Your task to perform on an android device: Search for Mexican restaurants on Maps Image 0: 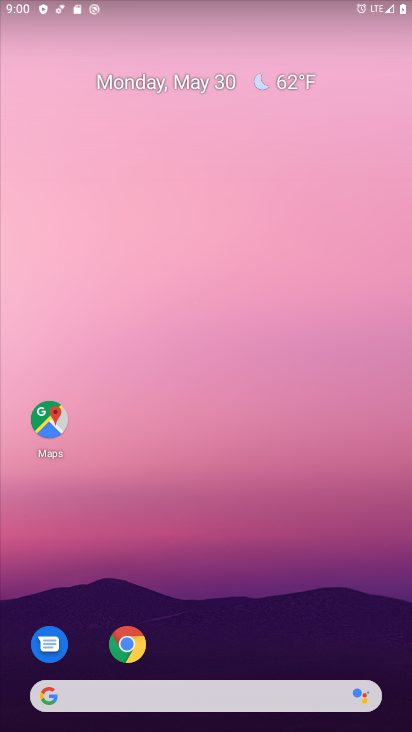
Step 0: click (52, 420)
Your task to perform on an android device: Search for Mexican restaurants on Maps Image 1: 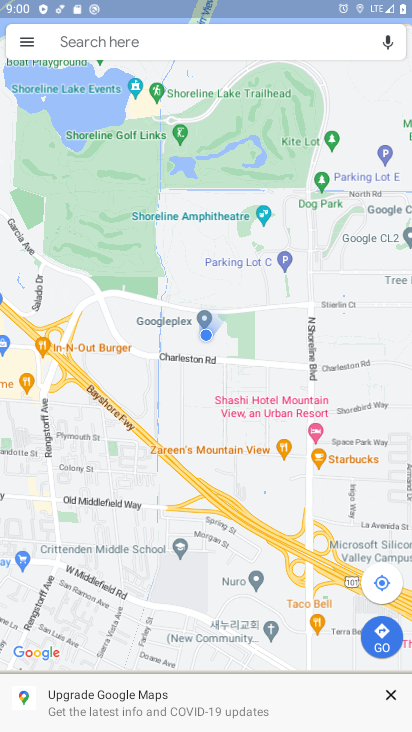
Step 1: click (121, 38)
Your task to perform on an android device: Search for Mexican restaurants on Maps Image 2: 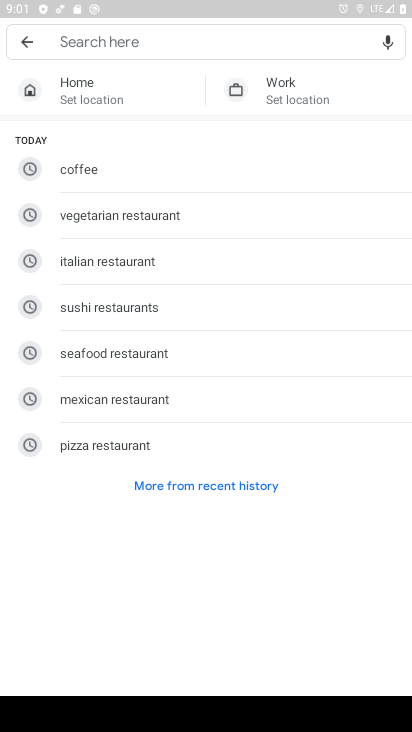
Step 2: type "mexican restaurants"
Your task to perform on an android device: Search for Mexican restaurants on Maps Image 3: 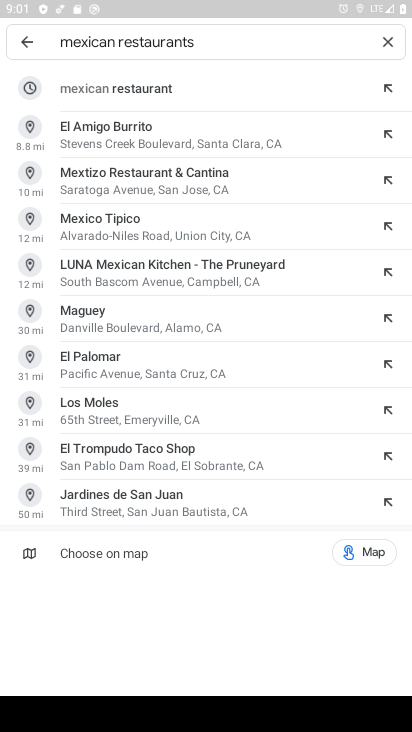
Step 3: click (116, 86)
Your task to perform on an android device: Search for Mexican restaurants on Maps Image 4: 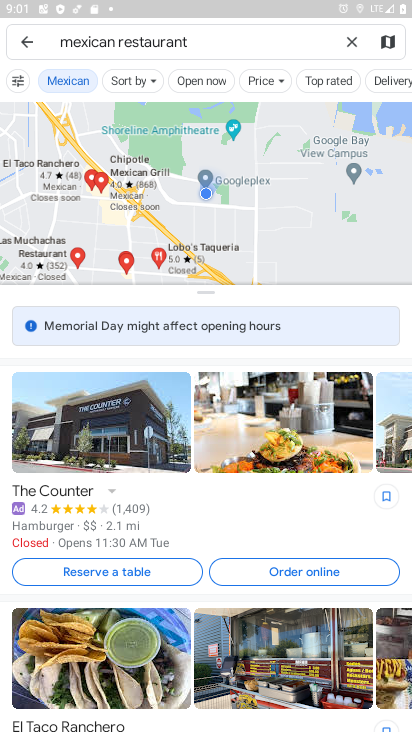
Step 4: task complete